Your task to perform on an android device: Open Maps and search for coffee Image 0: 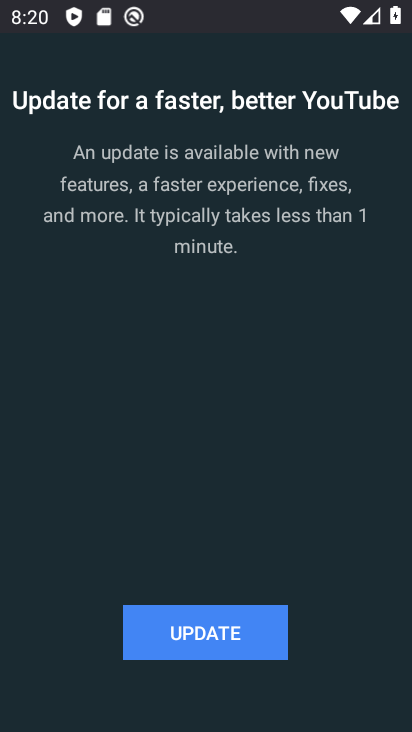
Step 0: press home button
Your task to perform on an android device: Open Maps and search for coffee Image 1: 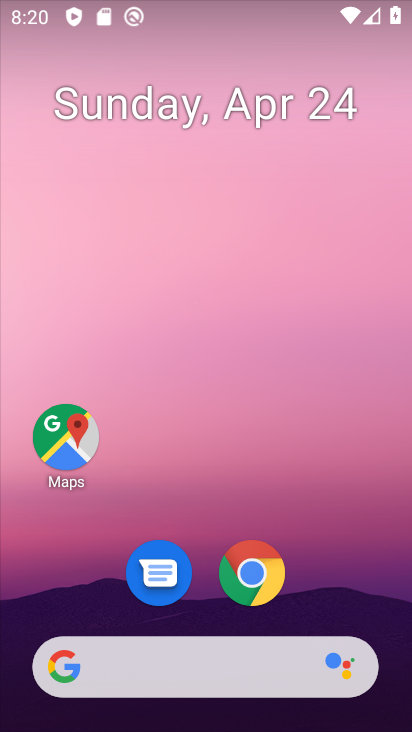
Step 1: click (76, 435)
Your task to perform on an android device: Open Maps and search for coffee Image 2: 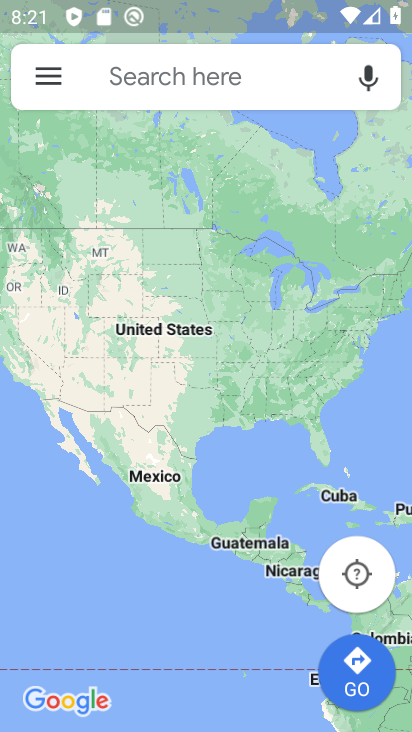
Step 2: click (161, 88)
Your task to perform on an android device: Open Maps and search for coffee Image 3: 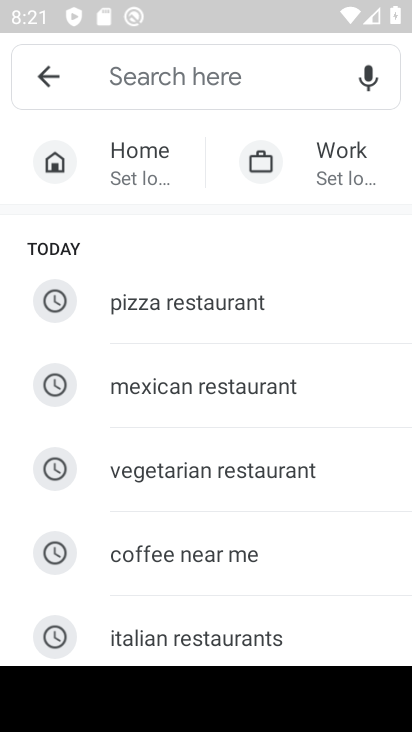
Step 3: drag from (201, 573) to (191, 289)
Your task to perform on an android device: Open Maps and search for coffee Image 4: 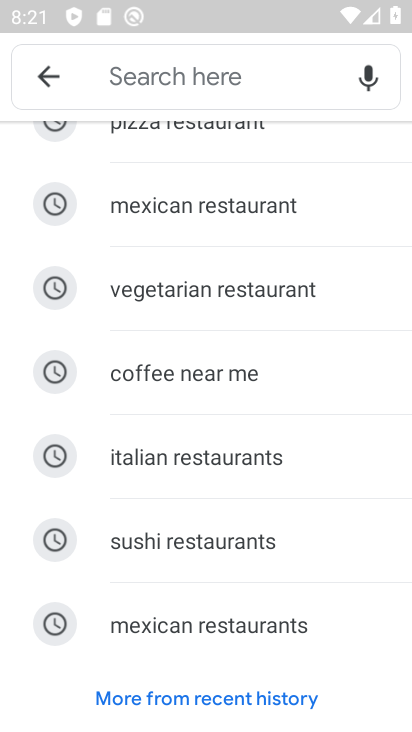
Step 4: click (209, 82)
Your task to perform on an android device: Open Maps and search for coffee Image 5: 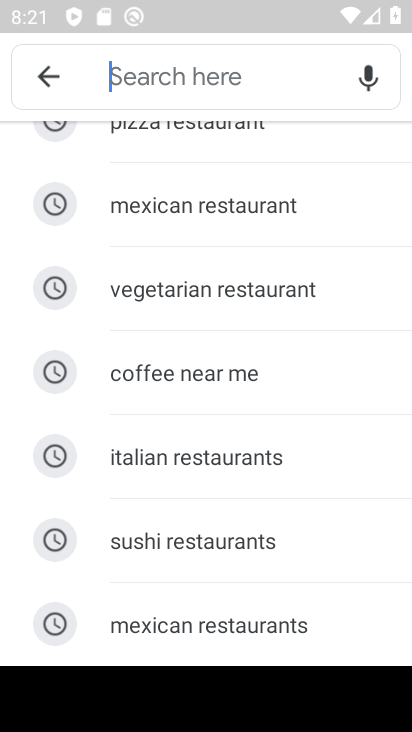
Step 5: type "coffee"
Your task to perform on an android device: Open Maps and search for coffee Image 6: 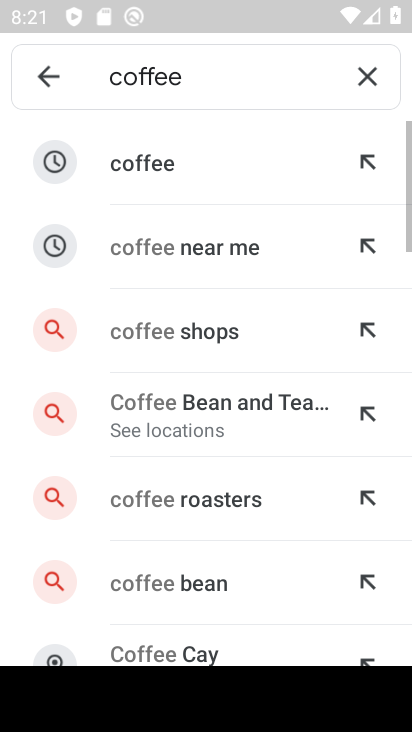
Step 6: click (148, 161)
Your task to perform on an android device: Open Maps and search for coffee Image 7: 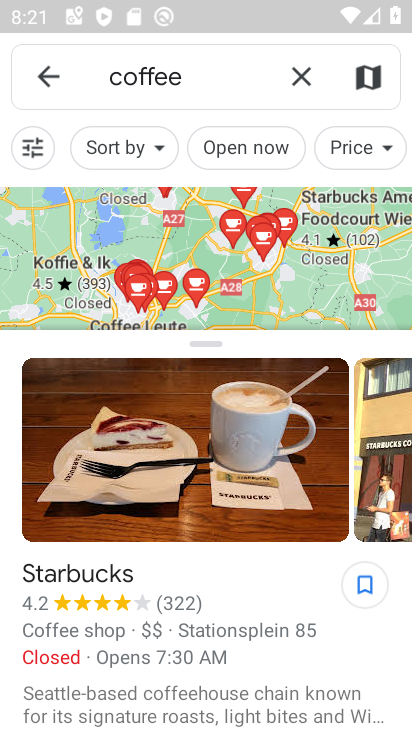
Step 7: task complete